Your task to perform on an android device: change the clock display to digital Image 0: 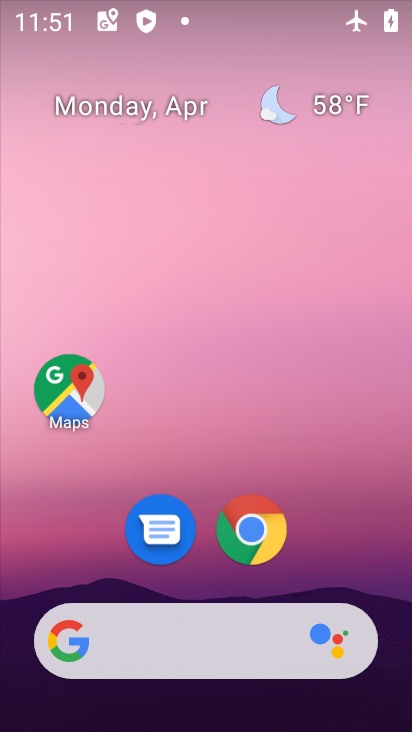
Step 0: drag from (387, 616) to (153, 53)
Your task to perform on an android device: change the clock display to digital Image 1: 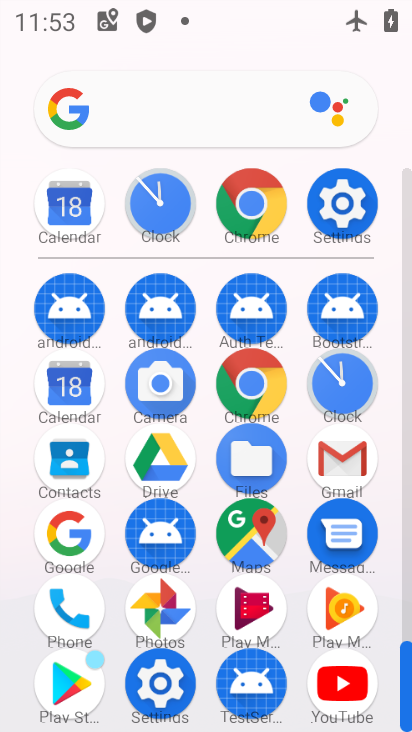
Step 1: click (341, 356)
Your task to perform on an android device: change the clock display to digital Image 2: 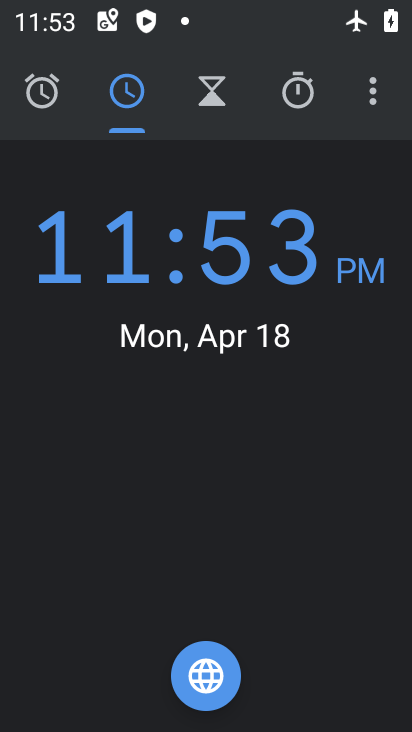
Step 2: click (381, 82)
Your task to perform on an android device: change the clock display to digital Image 3: 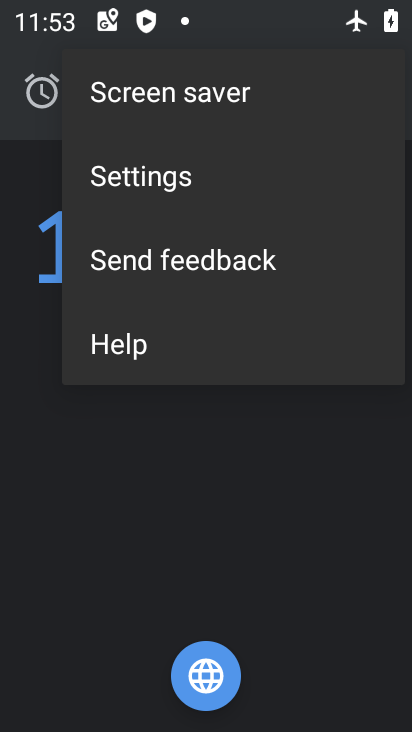
Step 3: click (189, 175)
Your task to perform on an android device: change the clock display to digital Image 4: 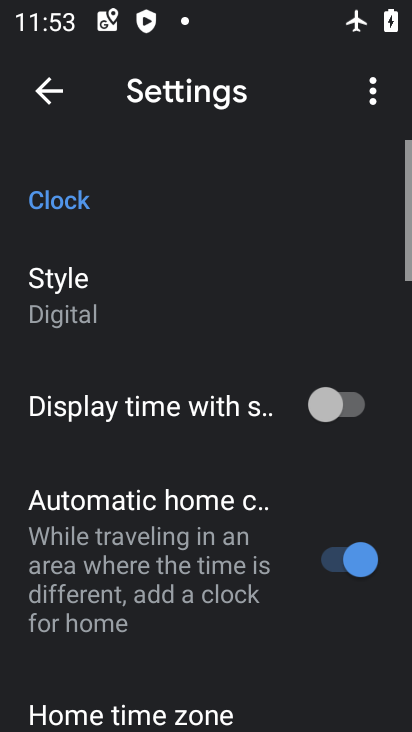
Step 4: click (171, 299)
Your task to perform on an android device: change the clock display to digital Image 5: 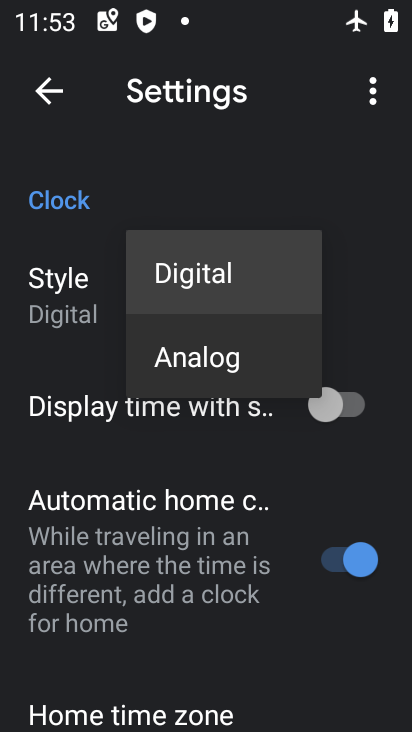
Step 5: click (194, 278)
Your task to perform on an android device: change the clock display to digital Image 6: 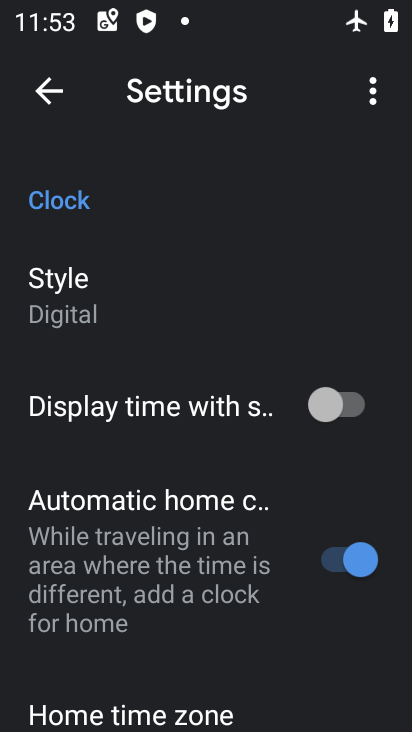
Step 6: task complete